Your task to perform on an android device: turn off notifications settings in the gmail app Image 0: 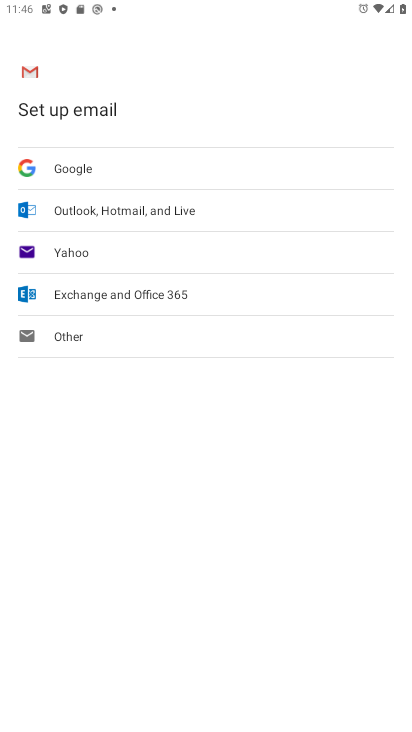
Step 0: press home button
Your task to perform on an android device: turn off notifications settings in the gmail app Image 1: 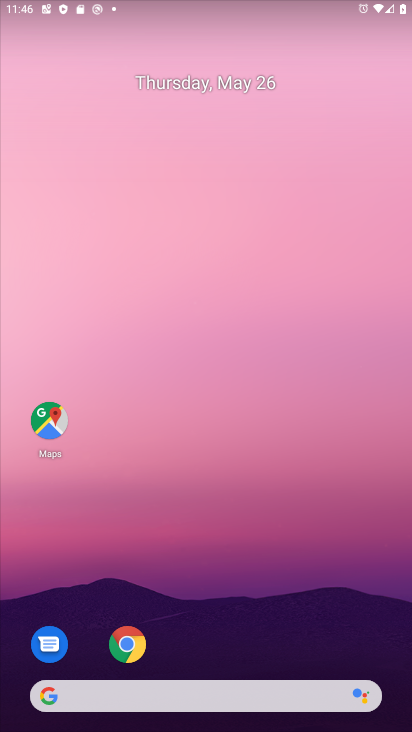
Step 1: drag from (215, 638) to (208, 148)
Your task to perform on an android device: turn off notifications settings in the gmail app Image 2: 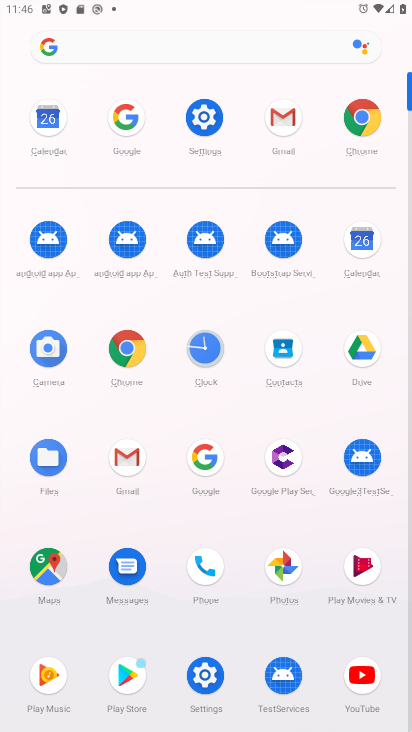
Step 2: click (133, 462)
Your task to perform on an android device: turn off notifications settings in the gmail app Image 3: 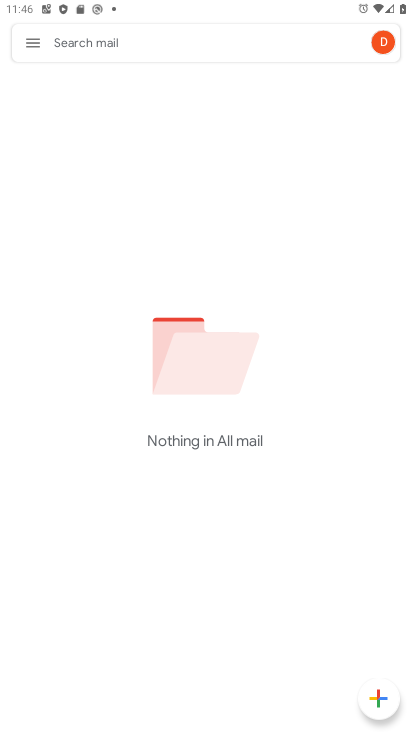
Step 3: click (31, 42)
Your task to perform on an android device: turn off notifications settings in the gmail app Image 4: 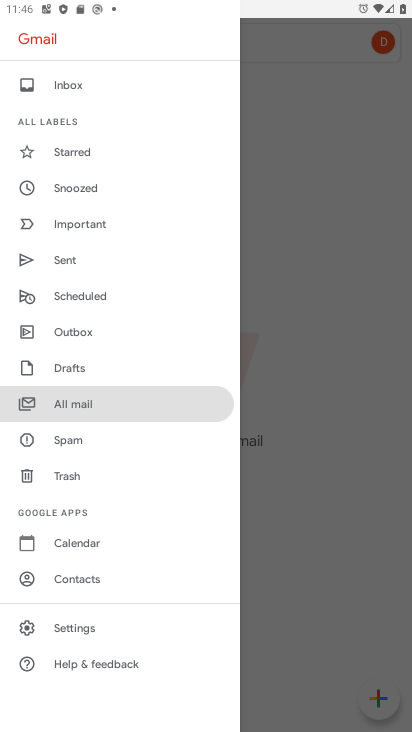
Step 4: click (99, 623)
Your task to perform on an android device: turn off notifications settings in the gmail app Image 5: 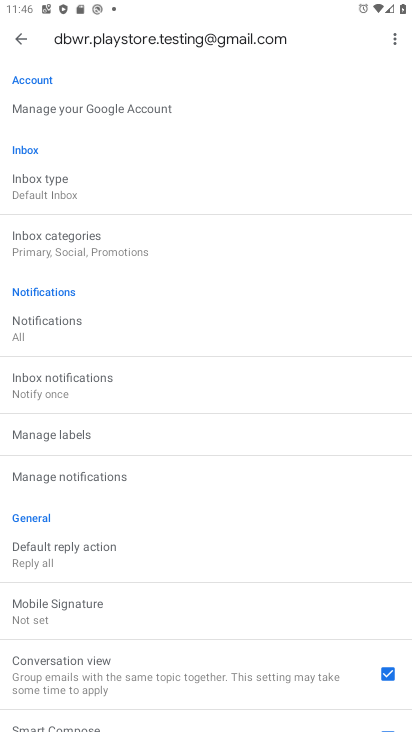
Step 5: click (119, 475)
Your task to perform on an android device: turn off notifications settings in the gmail app Image 6: 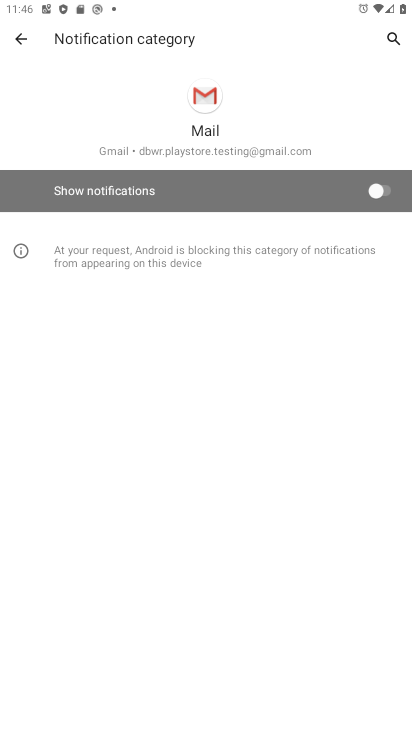
Step 6: task complete